Your task to perform on an android device: Go to CNN.com Image 0: 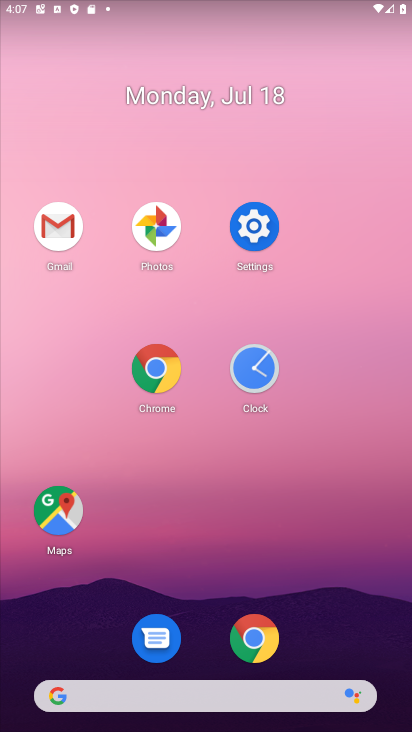
Step 0: click (247, 631)
Your task to perform on an android device: Go to CNN.com Image 1: 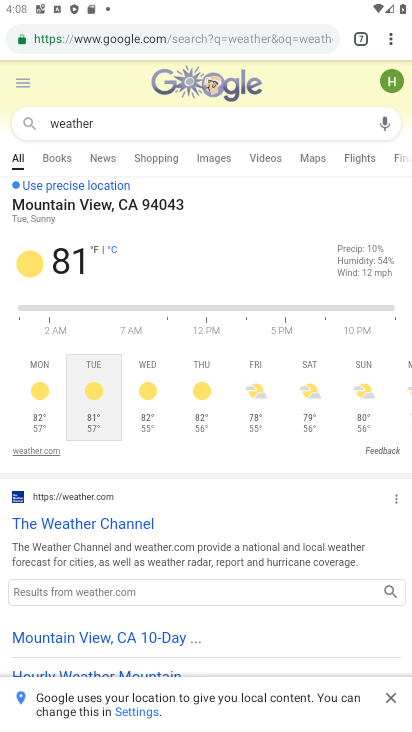
Step 1: click (359, 44)
Your task to perform on an android device: Go to CNN.com Image 2: 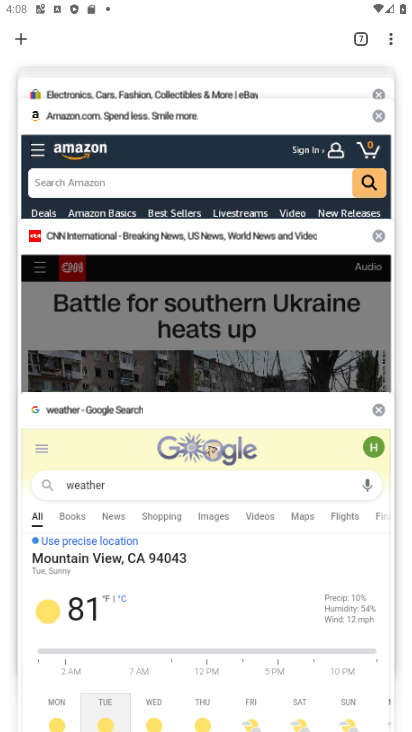
Step 2: click (236, 263)
Your task to perform on an android device: Go to CNN.com Image 3: 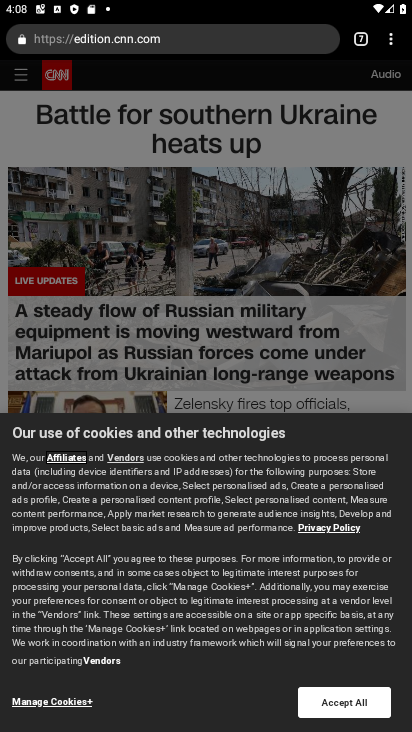
Step 3: task complete